Your task to perform on an android device: set default search engine in the chrome app Image 0: 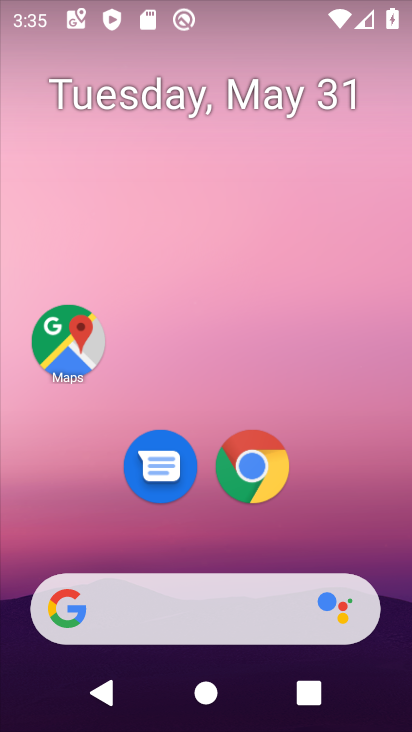
Step 0: click (252, 460)
Your task to perform on an android device: set default search engine in the chrome app Image 1: 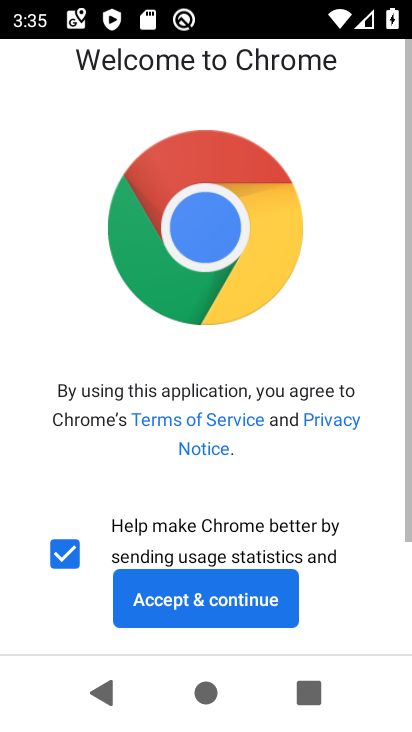
Step 1: click (189, 607)
Your task to perform on an android device: set default search engine in the chrome app Image 2: 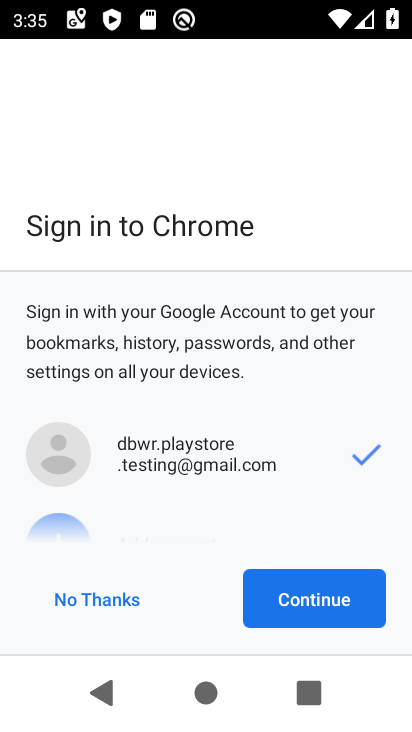
Step 2: click (317, 601)
Your task to perform on an android device: set default search engine in the chrome app Image 3: 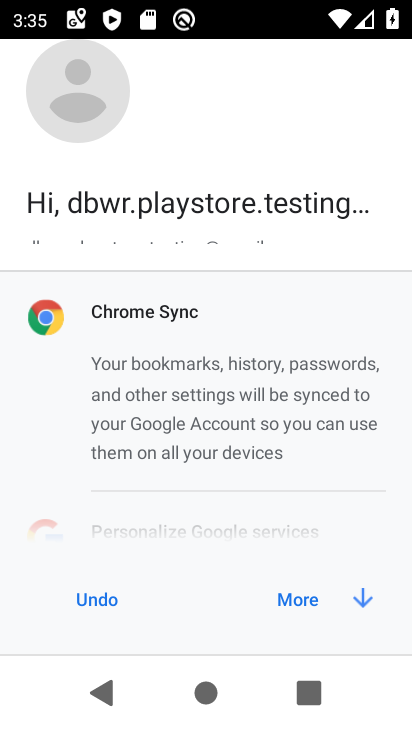
Step 3: click (313, 605)
Your task to perform on an android device: set default search engine in the chrome app Image 4: 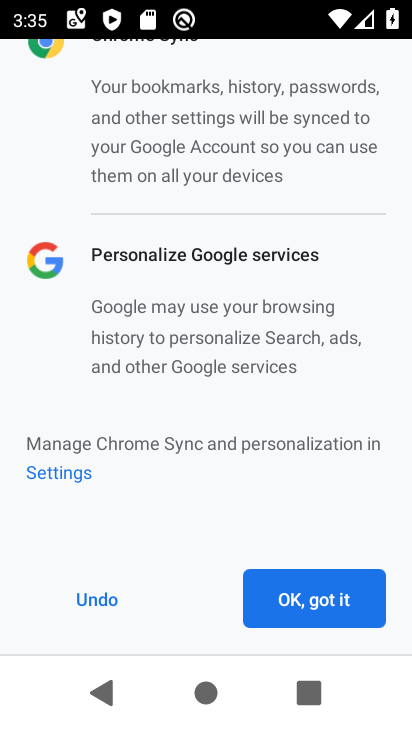
Step 4: click (317, 608)
Your task to perform on an android device: set default search engine in the chrome app Image 5: 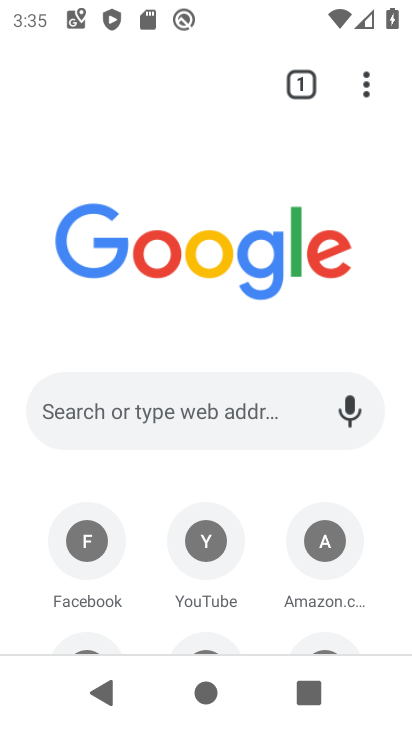
Step 5: drag from (365, 80) to (118, 511)
Your task to perform on an android device: set default search engine in the chrome app Image 6: 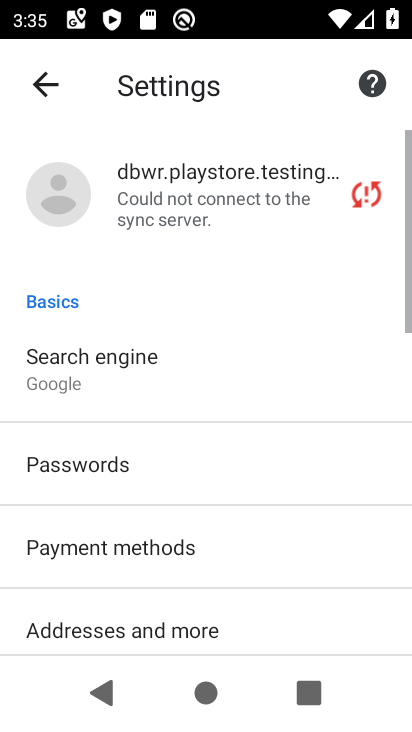
Step 6: click (90, 384)
Your task to perform on an android device: set default search engine in the chrome app Image 7: 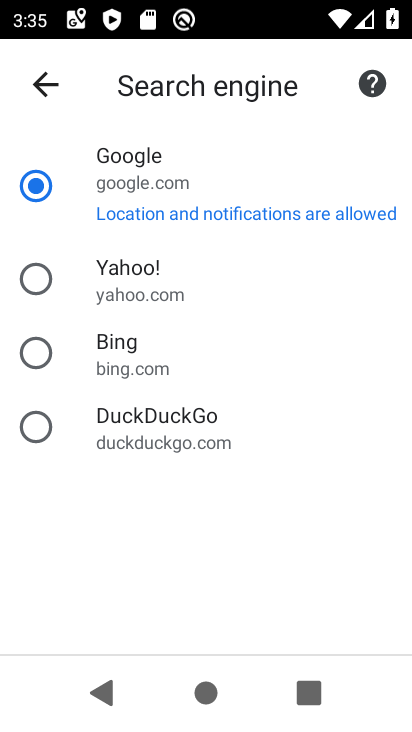
Step 7: click (42, 279)
Your task to perform on an android device: set default search engine in the chrome app Image 8: 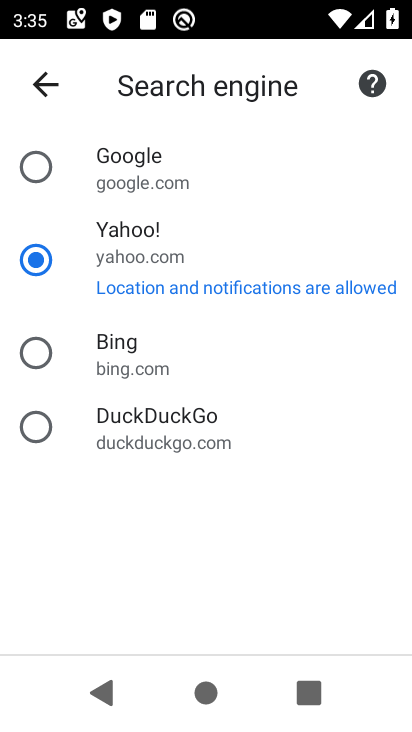
Step 8: task complete